Your task to perform on an android device: Go to Google Image 0: 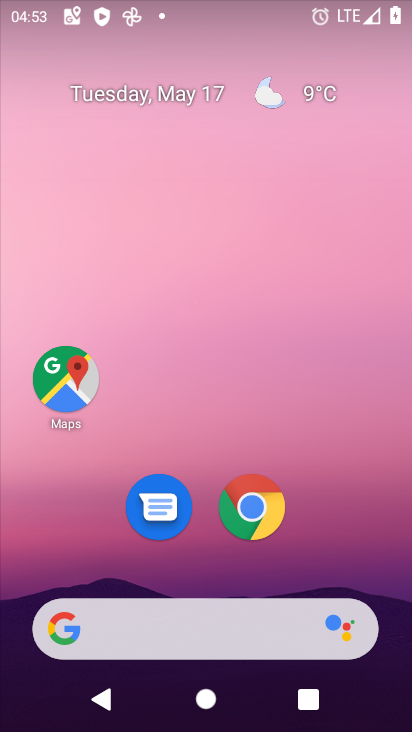
Step 0: drag from (323, 548) to (156, 36)
Your task to perform on an android device: Go to Google Image 1: 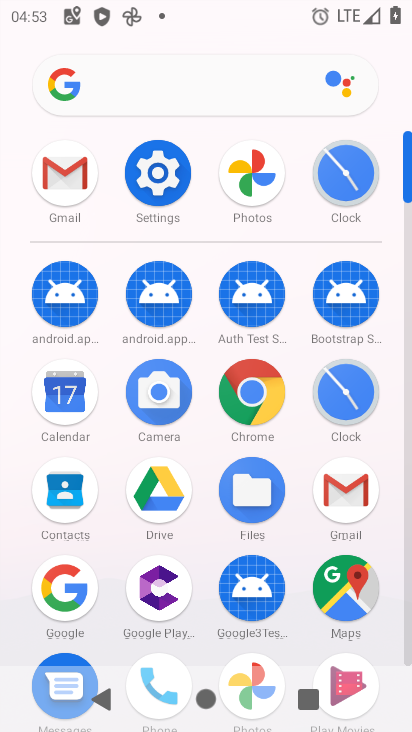
Step 1: click (61, 590)
Your task to perform on an android device: Go to Google Image 2: 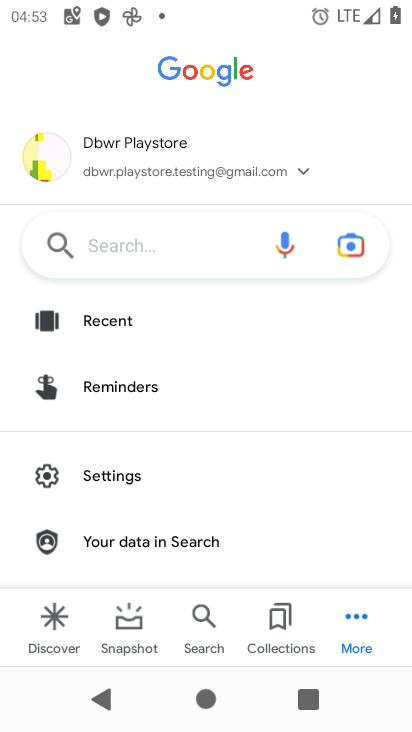
Step 2: task complete